Your task to perform on an android device: change the clock display to show seconds Image 0: 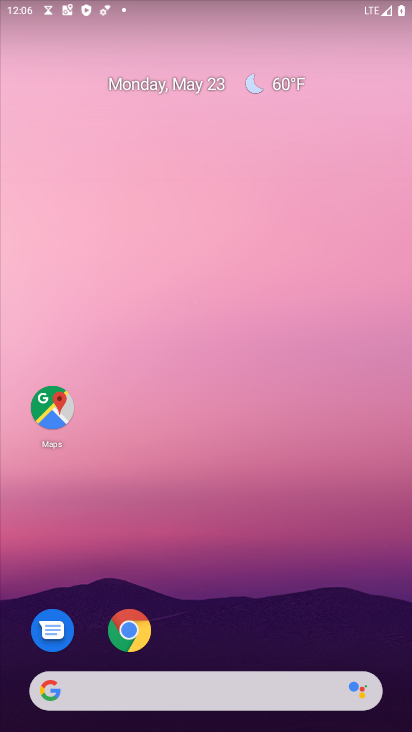
Step 0: drag from (297, 607) to (159, 70)
Your task to perform on an android device: change the clock display to show seconds Image 1: 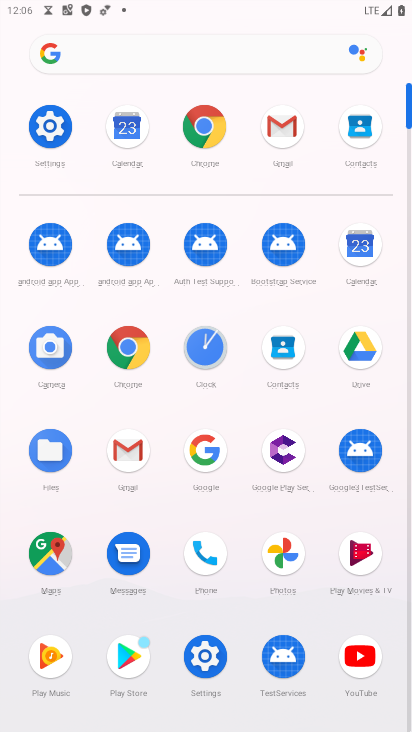
Step 1: click (206, 348)
Your task to perform on an android device: change the clock display to show seconds Image 2: 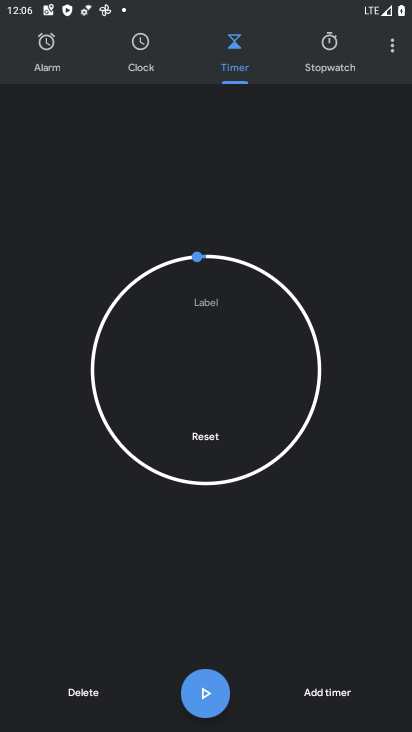
Step 2: click (392, 42)
Your task to perform on an android device: change the clock display to show seconds Image 3: 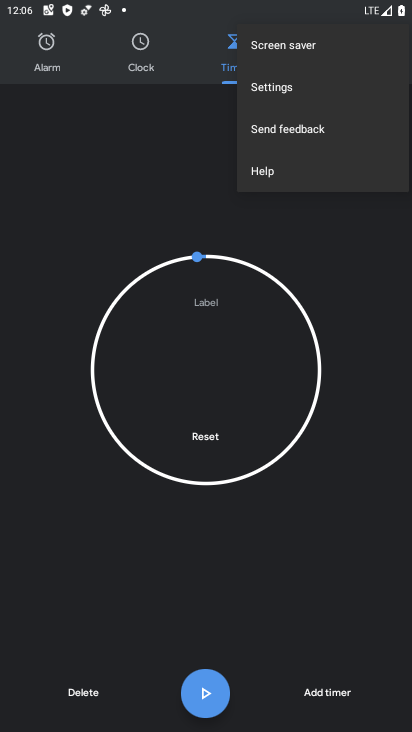
Step 3: click (259, 84)
Your task to perform on an android device: change the clock display to show seconds Image 4: 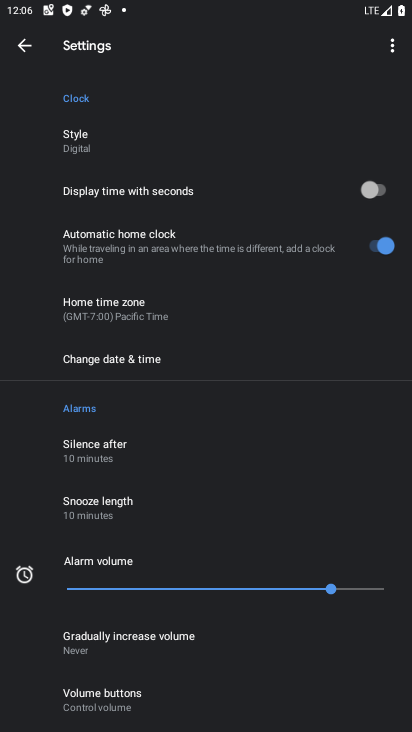
Step 4: click (377, 191)
Your task to perform on an android device: change the clock display to show seconds Image 5: 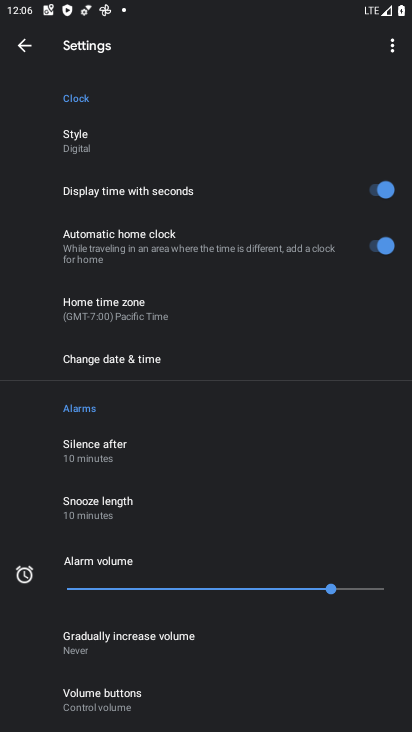
Step 5: task complete